Your task to perform on an android device: Open the Play Movies app and select the watchlist tab. Image 0: 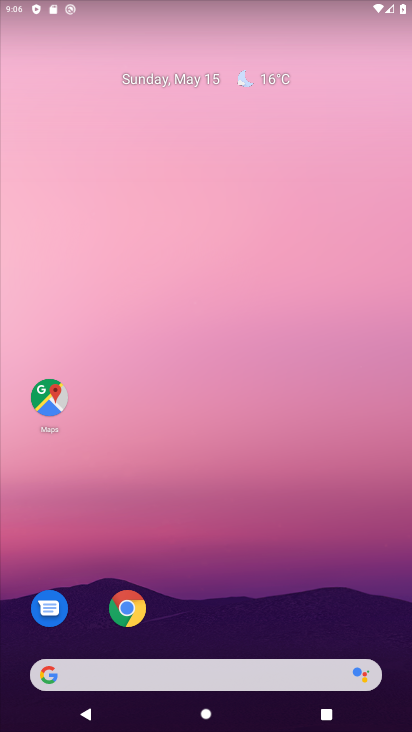
Step 0: drag from (217, 657) to (199, 51)
Your task to perform on an android device: Open the Play Movies app and select the watchlist tab. Image 1: 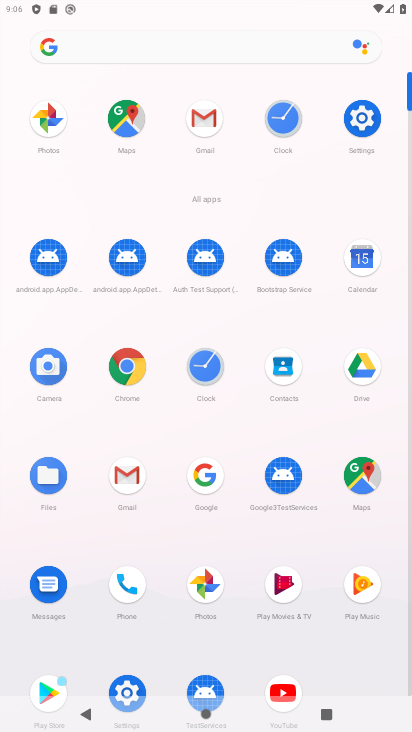
Step 1: click (281, 589)
Your task to perform on an android device: Open the Play Movies app and select the watchlist tab. Image 2: 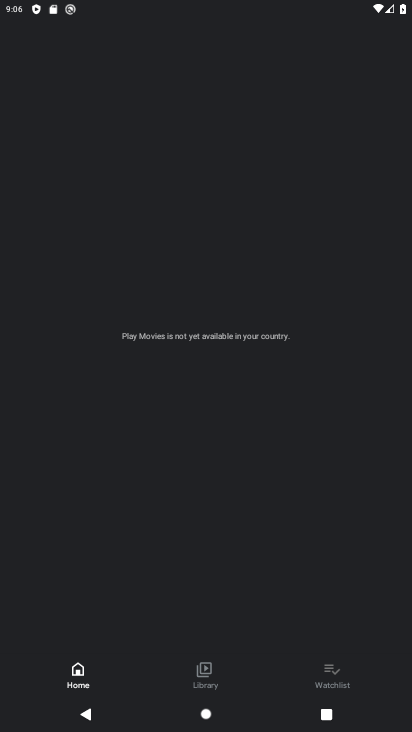
Step 2: click (337, 682)
Your task to perform on an android device: Open the Play Movies app and select the watchlist tab. Image 3: 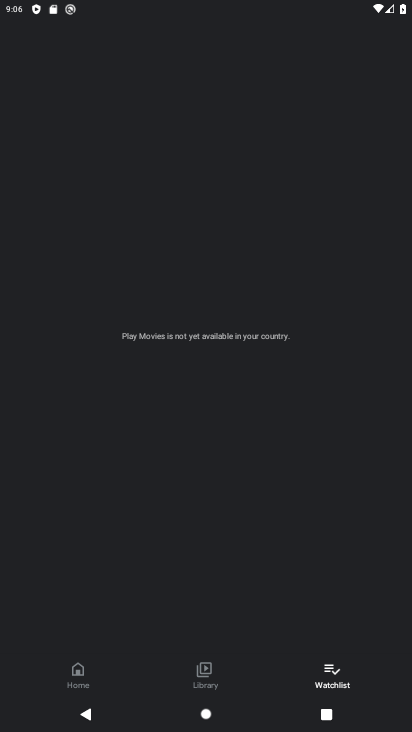
Step 3: task complete